Your task to perform on an android device: Go to Wikipedia Image 0: 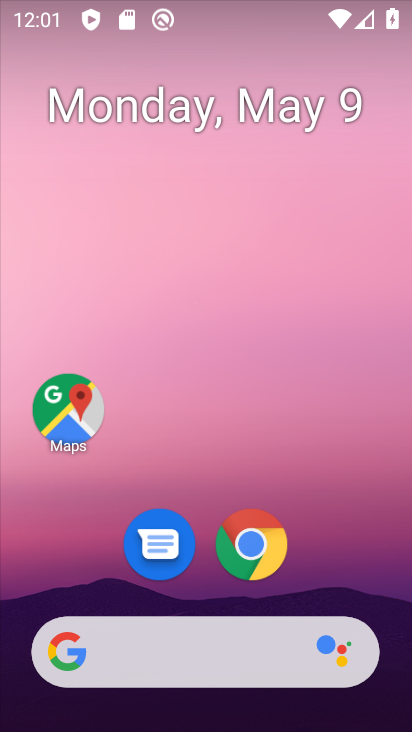
Step 0: drag from (361, 537) to (411, 126)
Your task to perform on an android device: Go to Wikipedia Image 1: 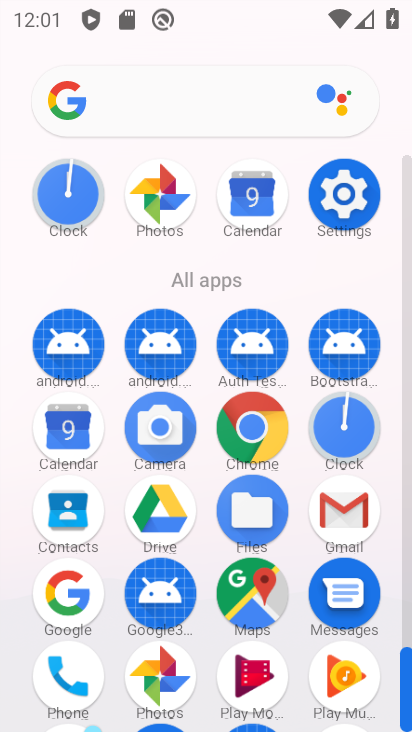
Step 1: click (370, 206)
Your task to perform on an android device: Go to Wikipedia Image 2: 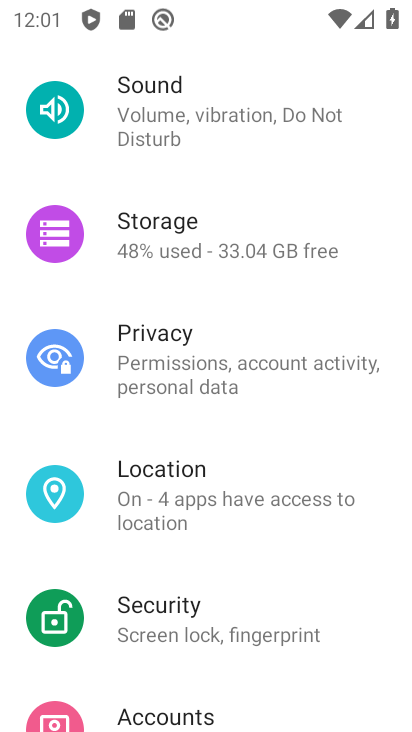
Step 2: drag from (186, 176) to (258, 514)
Your task to perform on an android device: Go to Wikipedia Image 3: 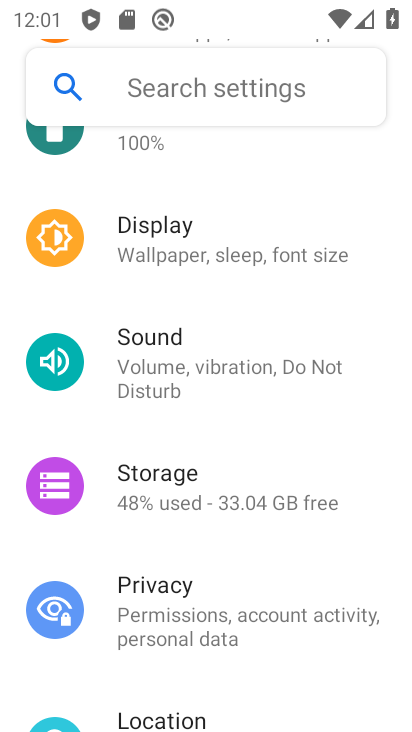
Step 3: drag from (272, 306) to (224, 515)
Your task to perform on an android device: Go to Wikipedia Image 4: 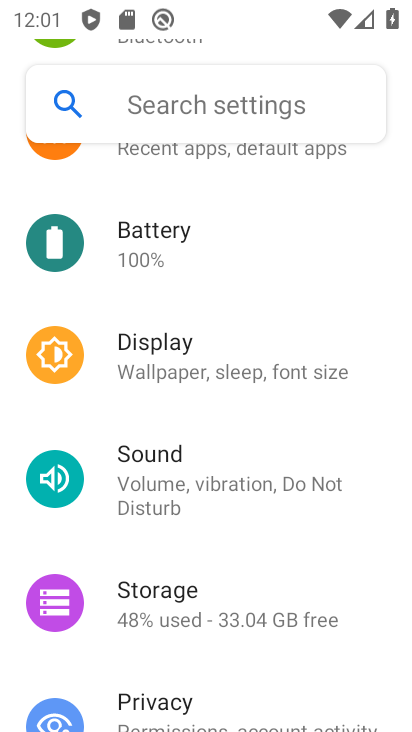
Step 4: drag from (278, 205) to (276, 562)
Your task to perform on an android device: Go to Wikipedia Image 5: 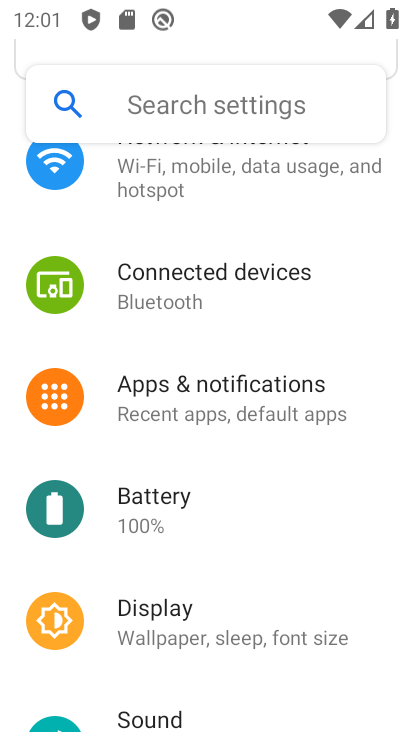
Step 5: drag from (247, 184) to (226, 571)
Your task to perform on an android device: Go to Wikipedia Image 6: 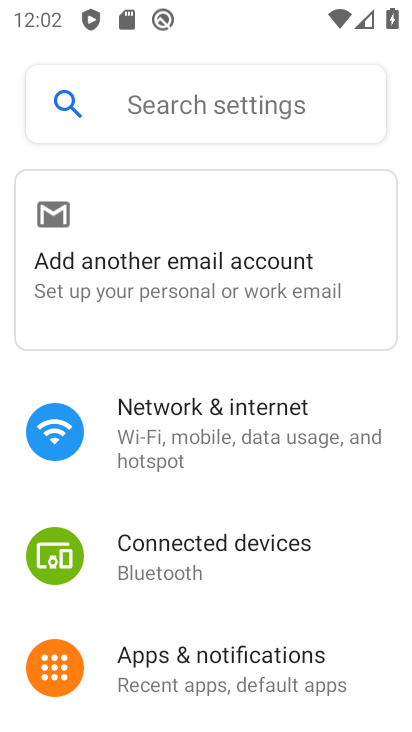
Step 6: click (178, 419)
Your task to perform on an android device: Go to Wikipedia Image 7: 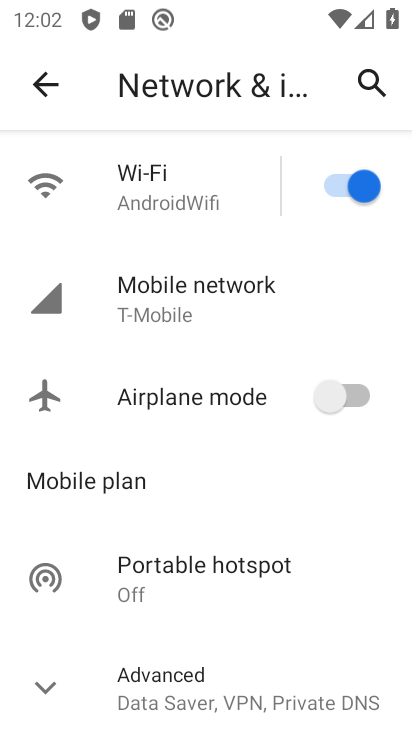
Step 7: press home button
Your task to perform on an android device: Go to Wikipedia Image 8: 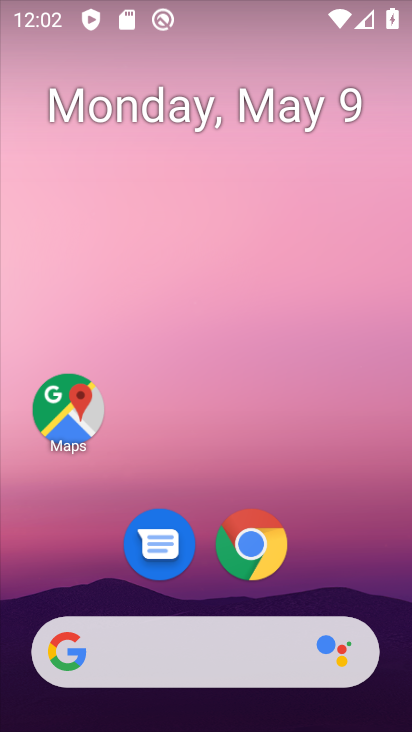
Step 8: drag from (312, 525) to (330, 18)
Your task to perform on an android device: Go to Wikipedia Image 9: 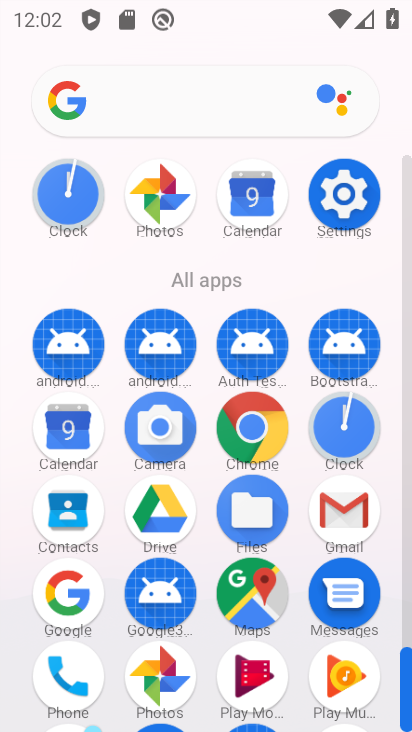
Step 9: click (241, 411)
Your task to perform on an android device: Go to Wikipedia Image 10: 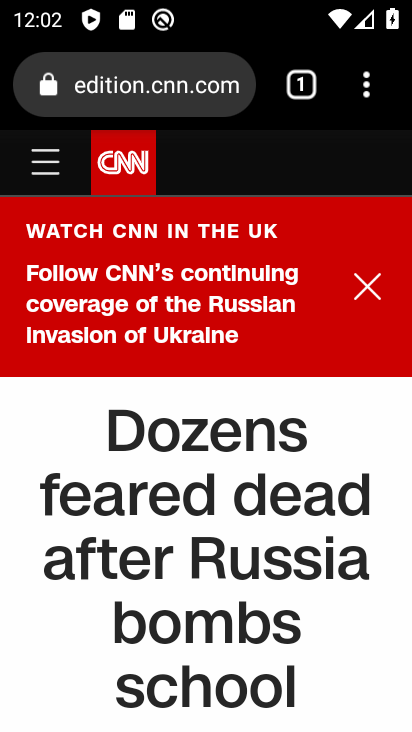
Step 10: click (189, 101)
Your task to perform on an android device: Go to Wikipedia Image 11: 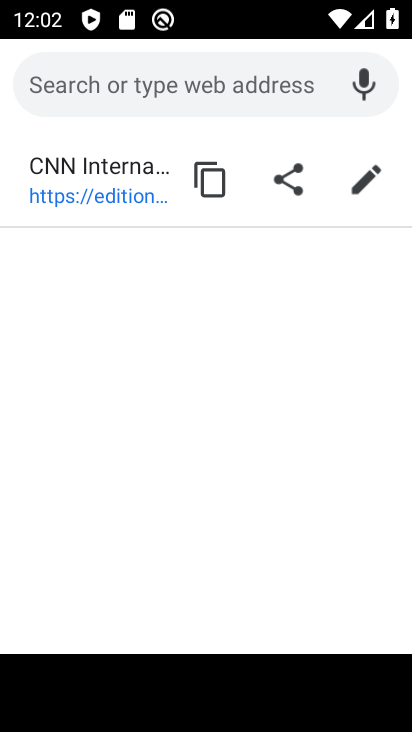
Step 11: type "wikipedia"
Your task to perform on an android device: Go to Wikipedia Image 12: 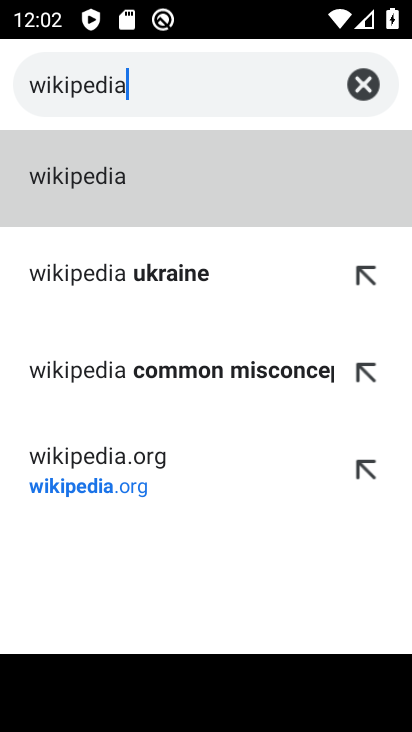
Step 12: click (190, 182)
Your task to perform on an android device: Go to Wikipedia Image 13: 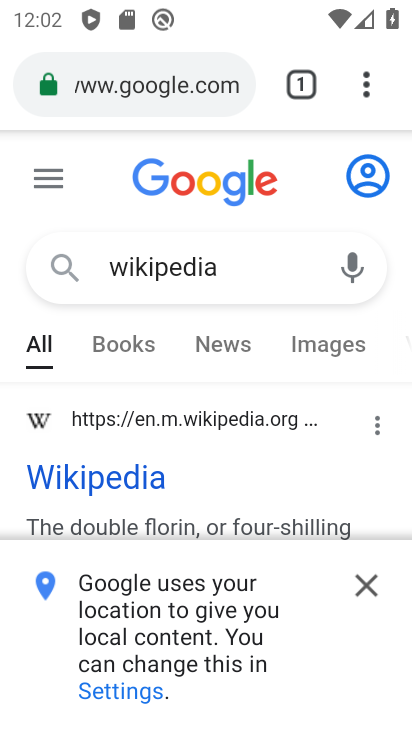
Step 13: click (136, 469)
Your task to perform on an android device: Go to Wikipedia Image 14: 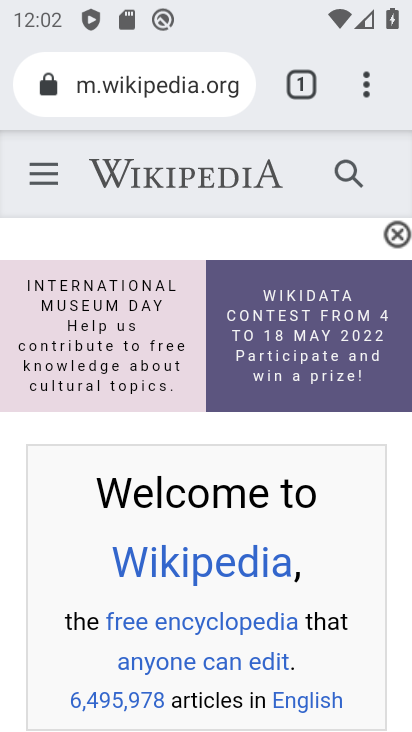
Step 14: task complete